Your task to perform on an android device: check google app version Image 0: 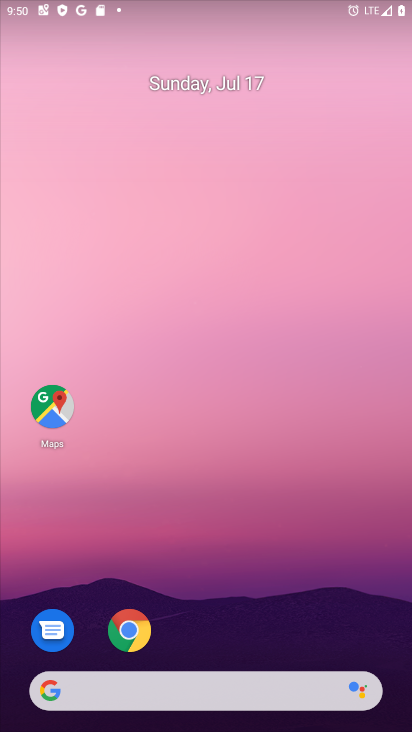
Step 0: click (234, 19)
Your task to perform on an android device: check google app version Image 1: 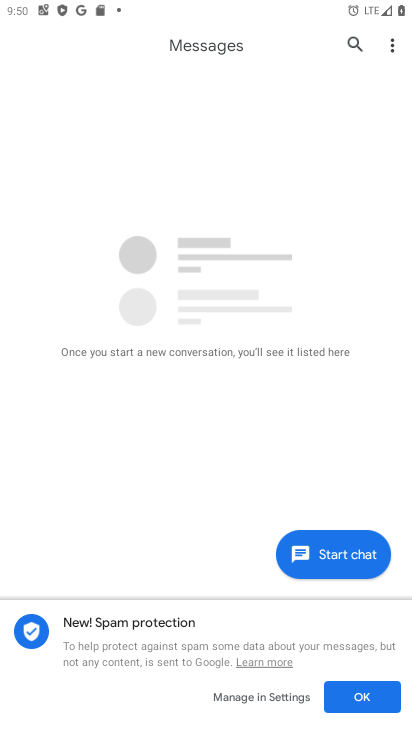
Step 1: press home button
Your task to perform on an android device: check google app version Image 2: 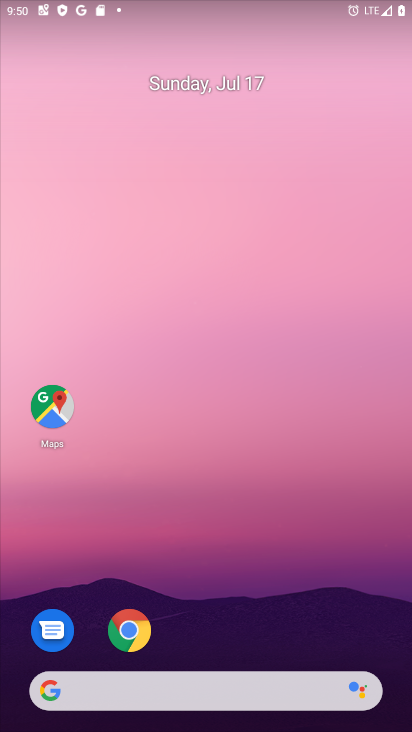
Step 2: drag from (236, 646) to (230, 84)
Your task to perform on an android device: check google app version Image 3: 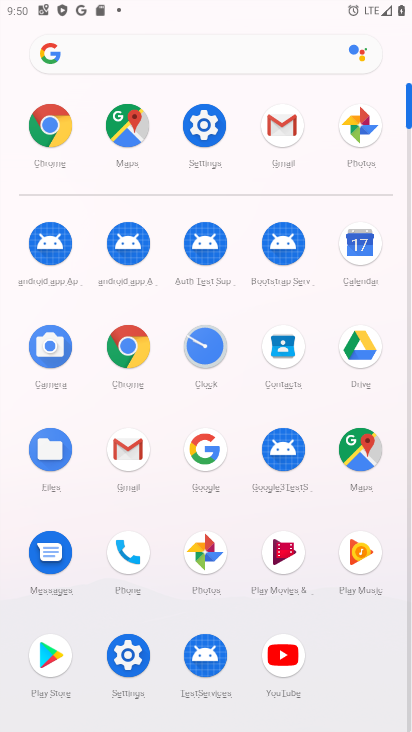
Step 3: click (197, 438)
Your task to perform on an android device: check google app version Image 4: 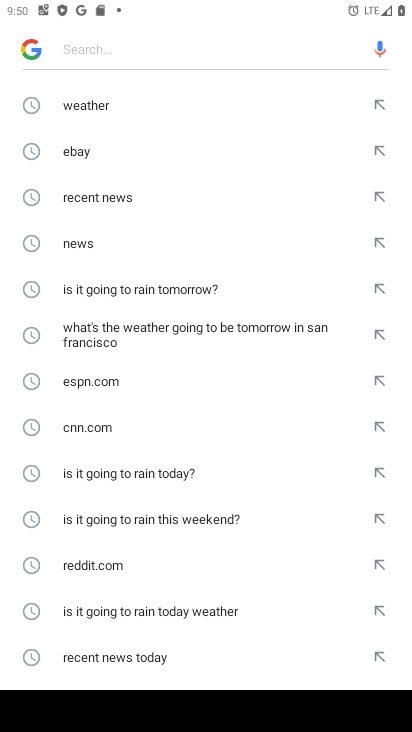
Step 4: press back button
Your task to perform on an android device: check google app version Image 5: 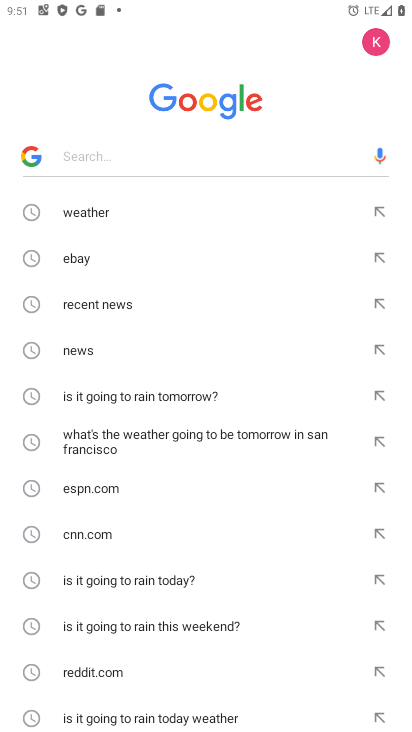
Step 5: press back button
Your task to perform on an android device: check google app version Image 6: 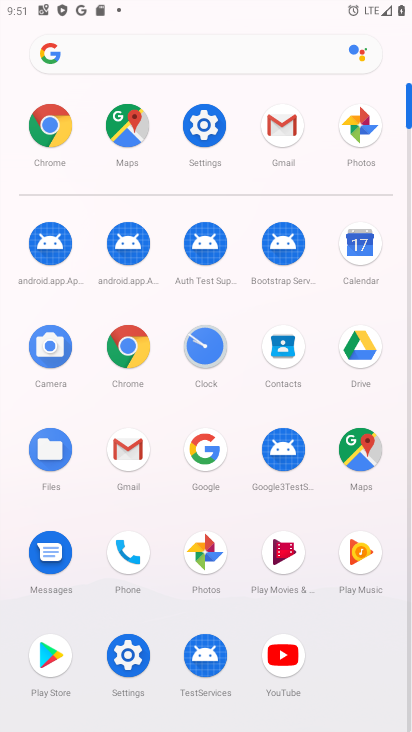
Step 6: click (207, 441)
Your task to perform on an android device: check google app version Image 7: 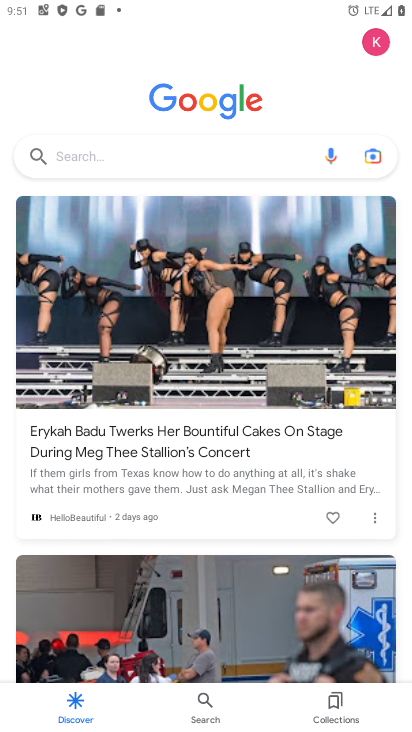
Step 7: click (375, 34)
Your task to perform on an android device: check google app version Image 8: 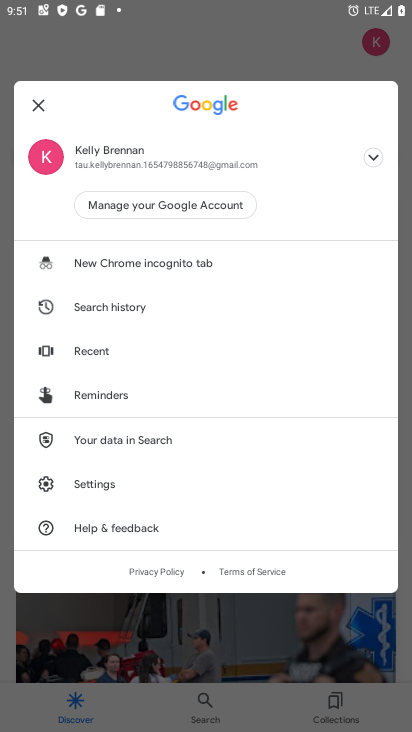
Step 8: click (119, 481)
Your task to perform on an android device: check google app version Image 9: 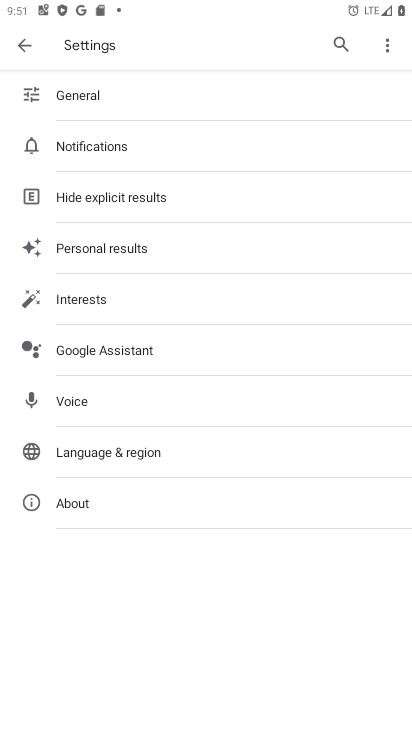
Step 9: click (95, 504)
Your task to perform on an android device: check google app version Image 10: 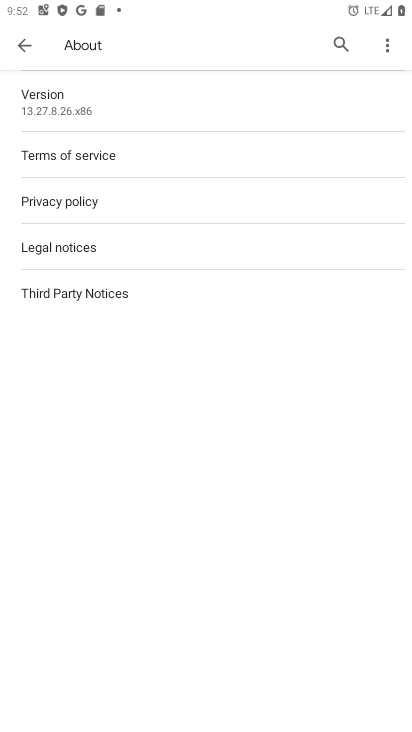
Step 10: task complete